Your task to perform on an android device: add a contact Image 0: 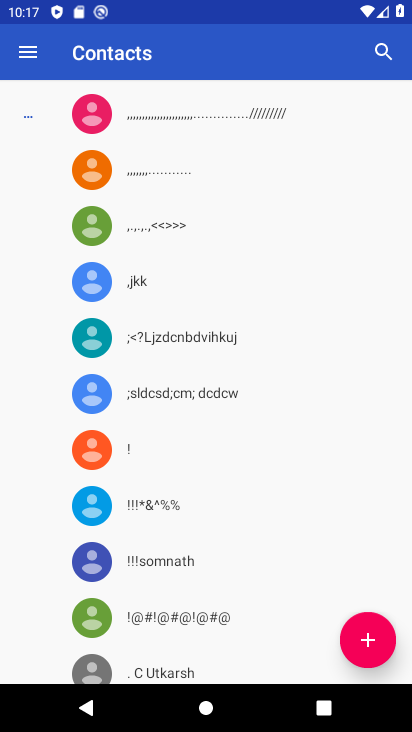
Step 0: press home button
Your task to perform on an android device: add a contact Image 1: 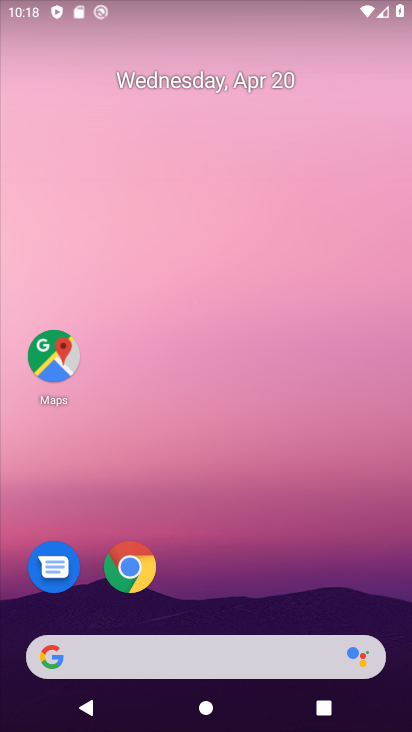
Step 1: drag from (247, 577) to (262, 48)
Your task to perform on an android device: add a contact Image 2: 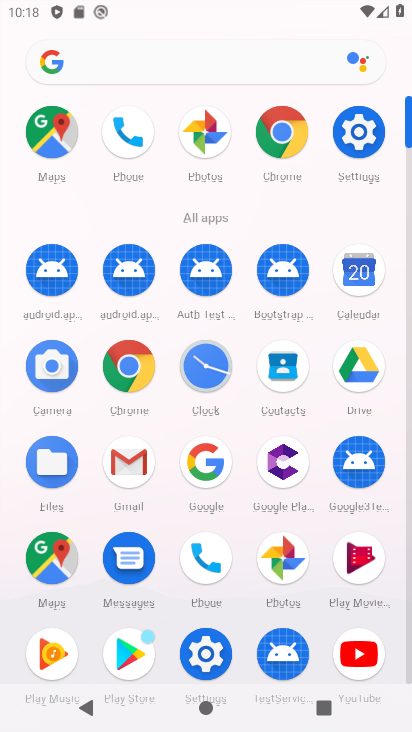
Step 2: click (288, 373)
Your task to perform on an android device: add a contact Image 3: 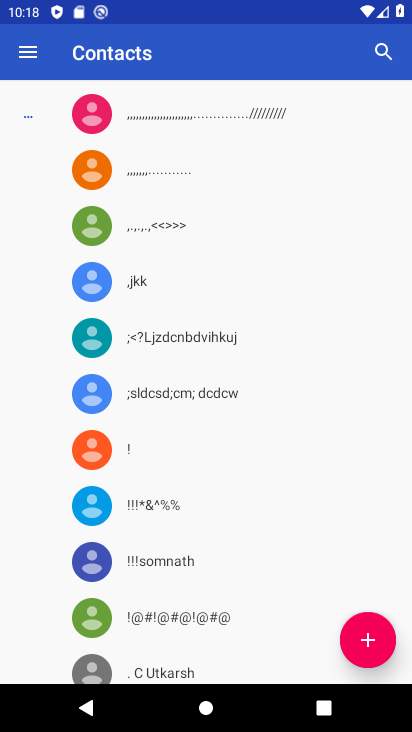
Step 3: click (367, 639)
Your task to perform on an android device: add a contact Image 4: 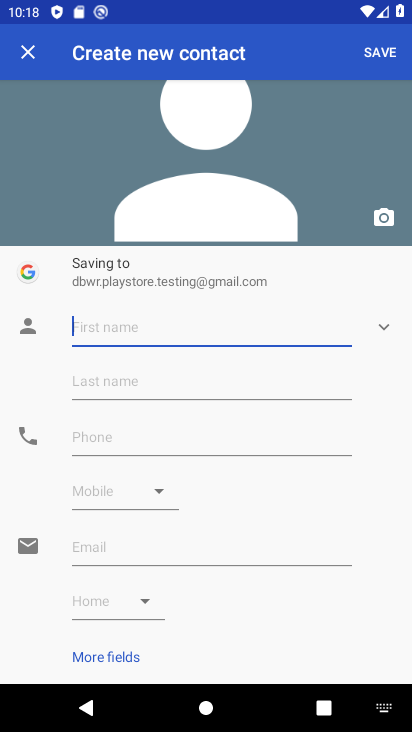
Step 4: click (154, 334)
Your task to perform on an android device: add a contact Image 5: 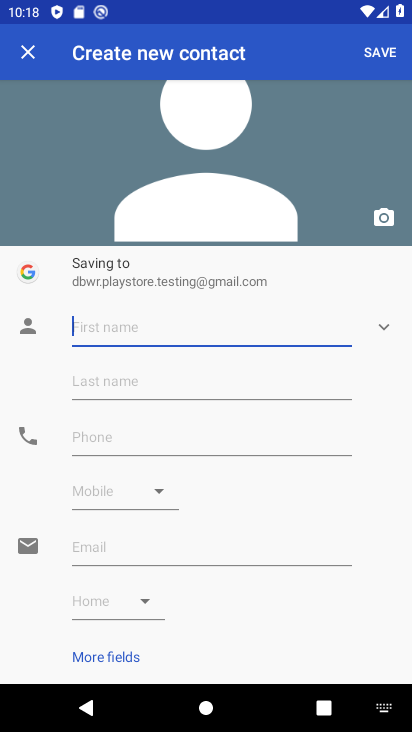
Step 5: type "Bankimchandra"
Your task to perform on an android device: add a contact Image 6: 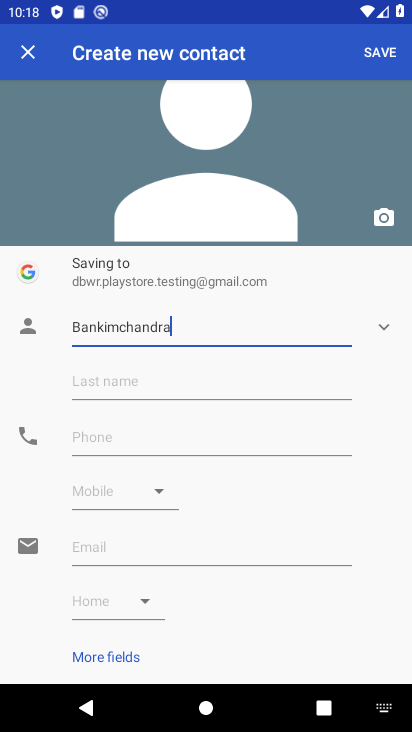
Step 6: type ""
Your task to perform on an android device: add a contact Image 7: 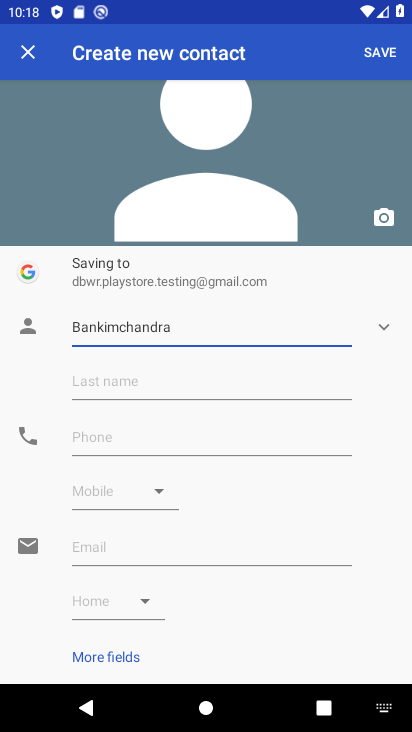
Step 7: click (139, 391)
Your task to perform on an android device: add a contact Image 8: 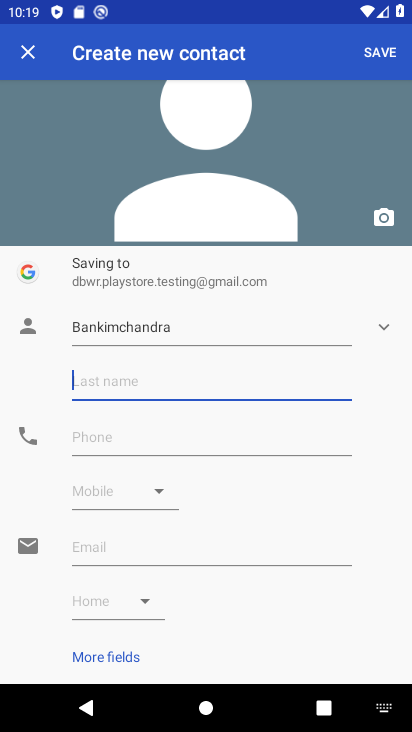
Step 8: type "Chatoupadhyay"
Your task to perform on an android device: add a contact Image 9: 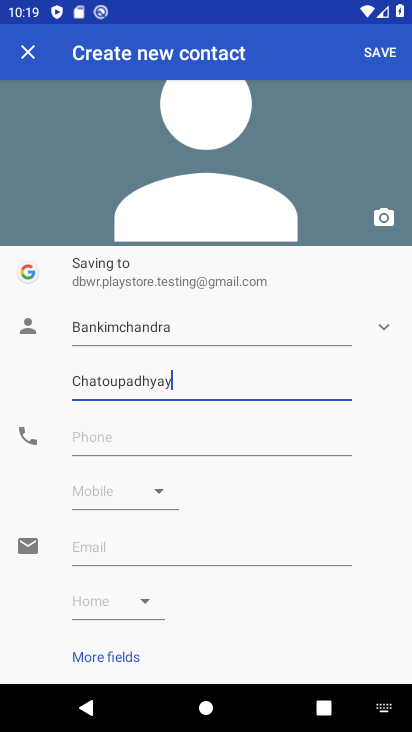
Step 9: type ""
Your task to perform on an android device: add a contact Image 10: 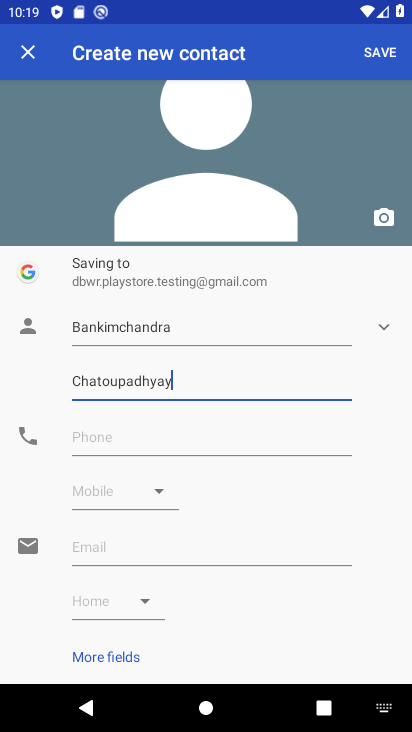
Step 10: click (144, 439)
Your task to perform on an android device: add a contact Image 11: 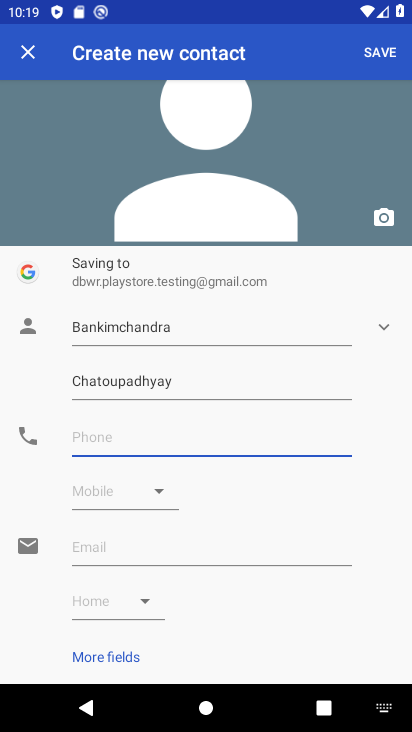
Step 11: type "09988776655"
Your task to perform on an android device: add a contact Image 12: 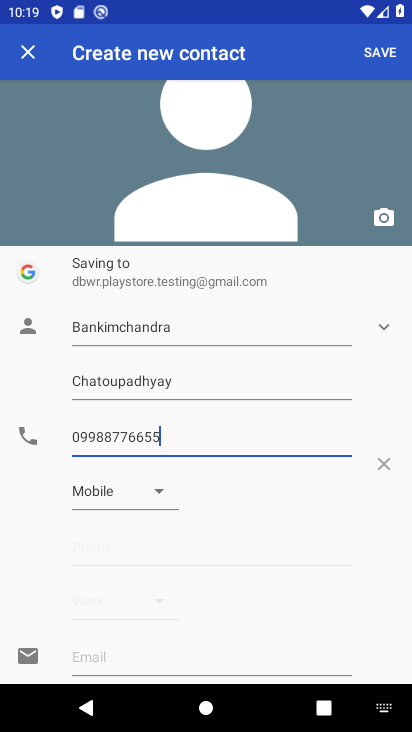
Step 12: type ""
Your task to perform on an android device: add a contact Image 13: 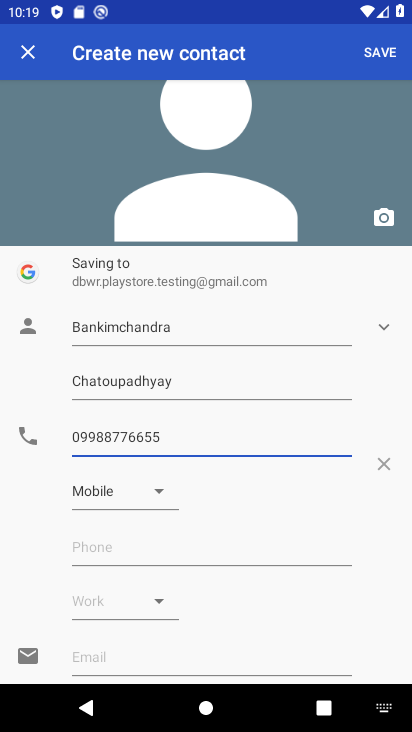
Step 13: click (385, 54)
Your task to perform on an android device: add a contact Image 14: 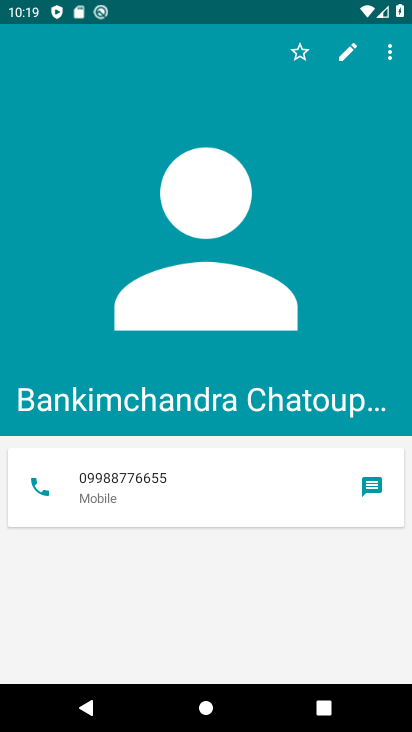
Step 14: task complete